Your task to perform on an android device: What's the weather? Image 0: 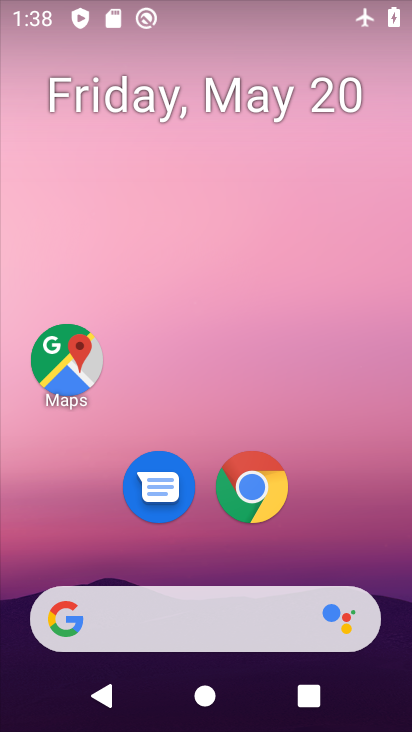
Step 0: click (63, 641)
Your task to perform on an android device: What's the weather? Image 1: 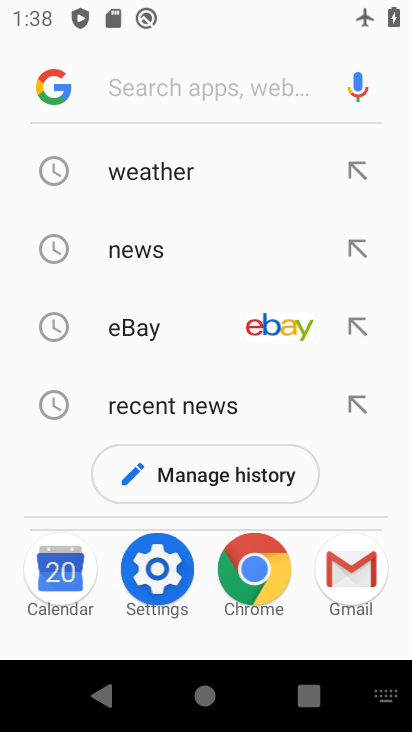
Step 1: click (49, 83)
Your task to perform on an android device: What's the weather? Image 2: 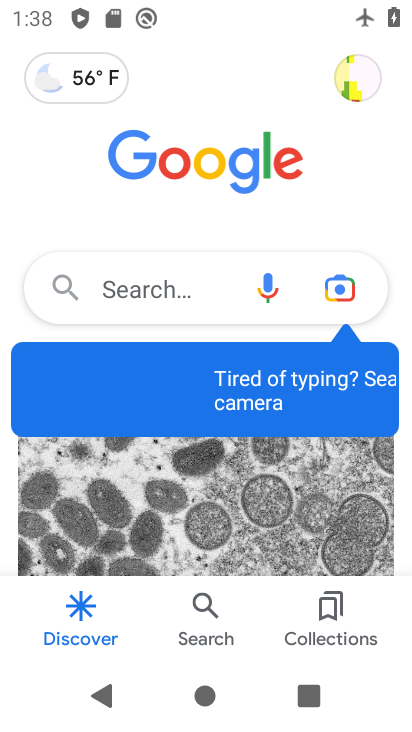
Step 2: click (88, 69)
Your task to perform on an android device: What's the weather? Image 3: 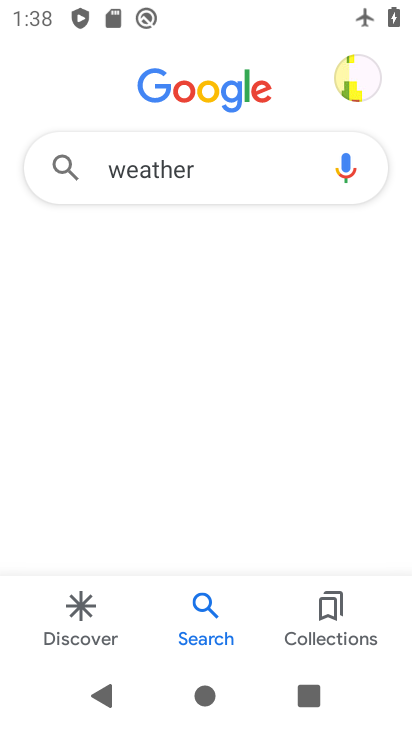
Step 3: task complete